Your task to perform on an android device: refresh tabs in the chrome app Image 0: 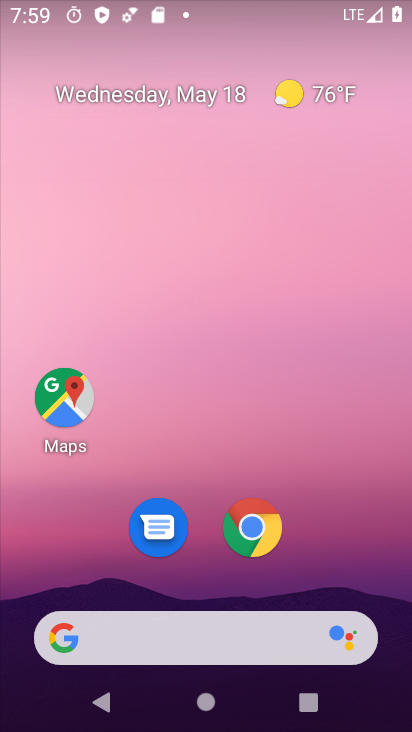
Step 0: click (260, 535)
Your task to perform on an android device: refresh tabs in the chrome app Image 1: 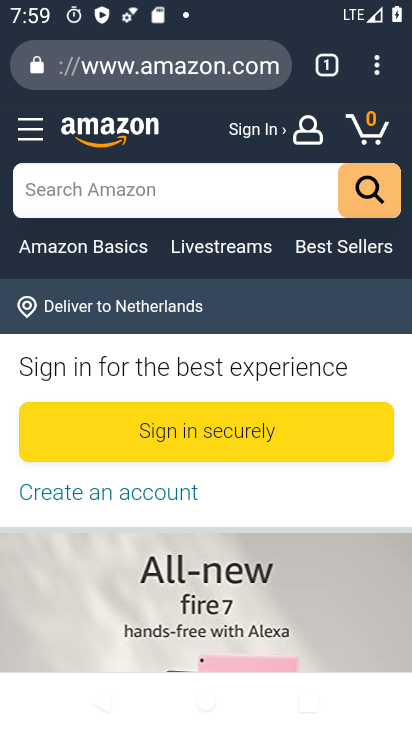
Step 1: click (377, 63)
Your task to perform on an android device: refresh tabs in the chrome app Image 2: 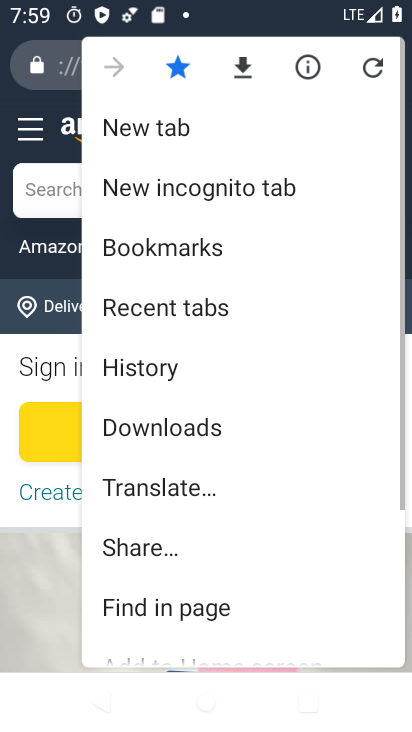
Step 2: click (377, 64)
Your task to perform on an android device: refresh tabs in the chrome app Image 3: 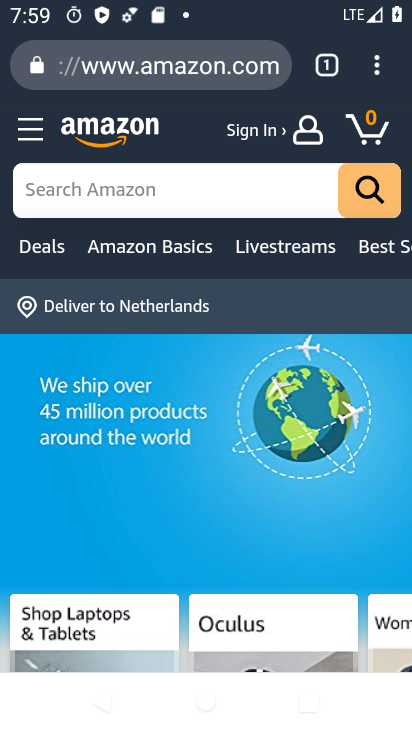
Step 3: task complete